Your task to perform on an android device: Open network settings Image 0: 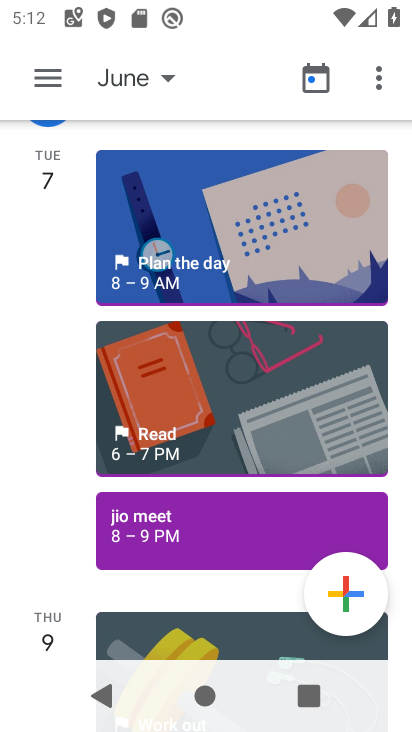
Step 0: press home button
Your task to perform on an android device: Open network settings Image 1: 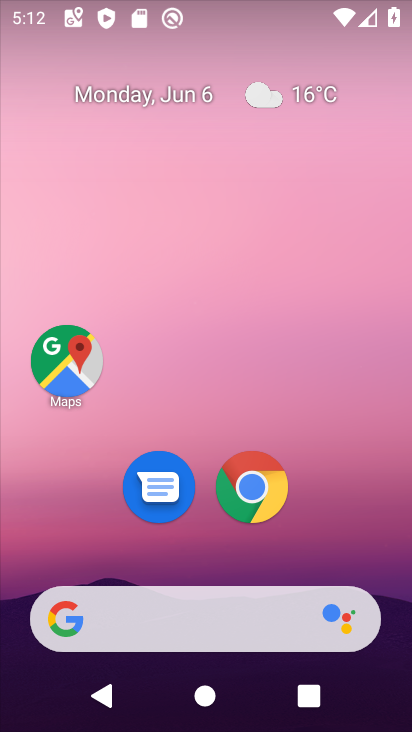
Step 1: drag from (302, 539) to (238, 14)
Your task to perform on an android device: Open network settings Image 2: 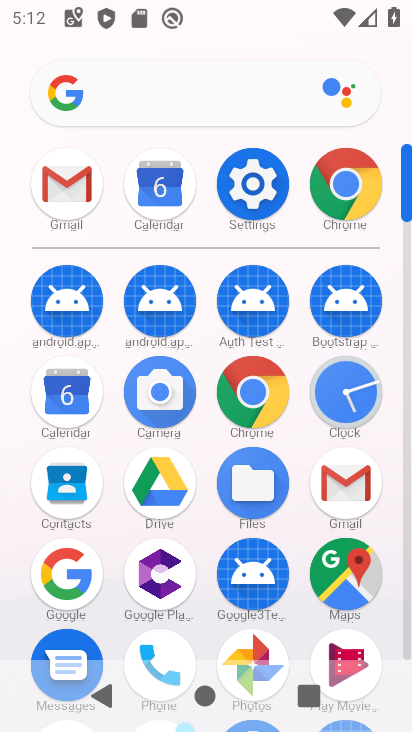
Step 2: click (252, 173)
Your task to perform on an android device: Open network settings Image 3: 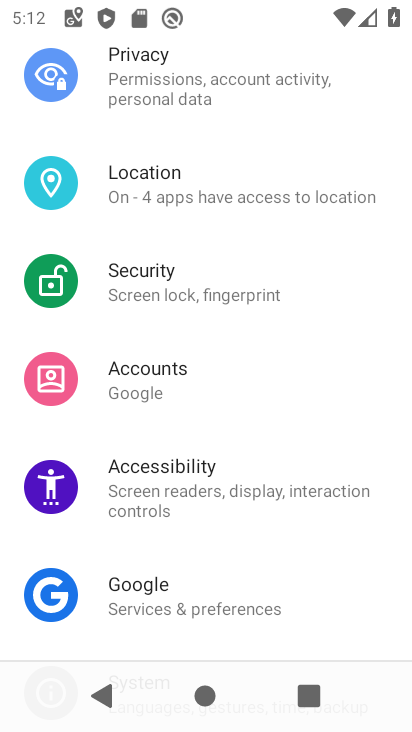
Step 3: drag from (236, 232) to (208, 558)
Your task to perform on an android device: Open network settings Image 4: 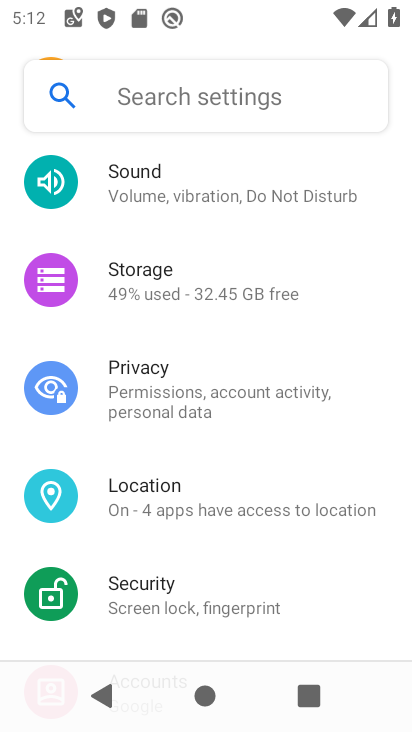
Step 4: drag from (237, 233) to (237, 587)
Your task to perform on an android device: Open network settings Image 5: 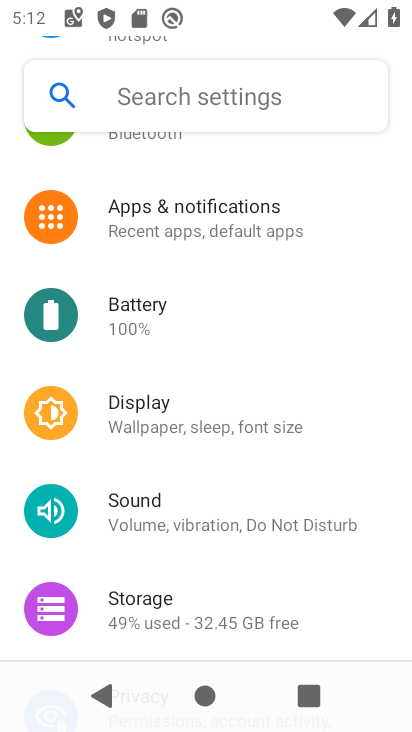
Step 5: drag from (239, 278) to (231, 635)
Your task to perform on an android device: Open network settings Image 6: 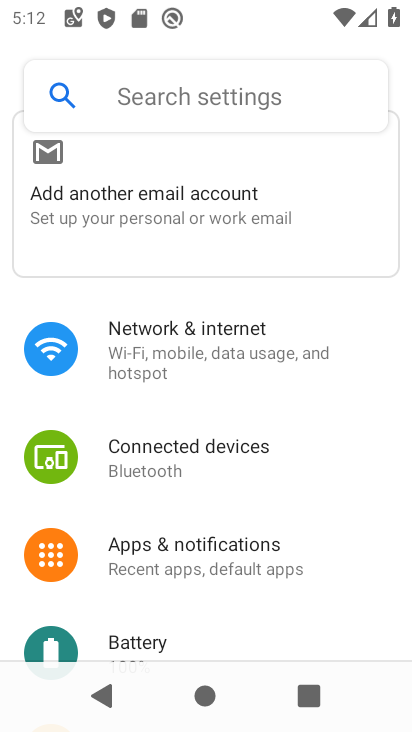
Step 6: click (230, 350)
Your task to perform on an android device: Open network settings Image 7: 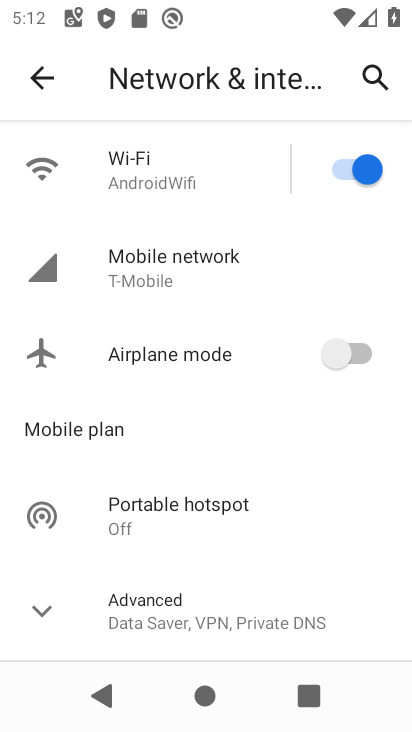
Step 7: task complete